Your task to perform on an android device: move an email to a new category in the gmail app Image 0: 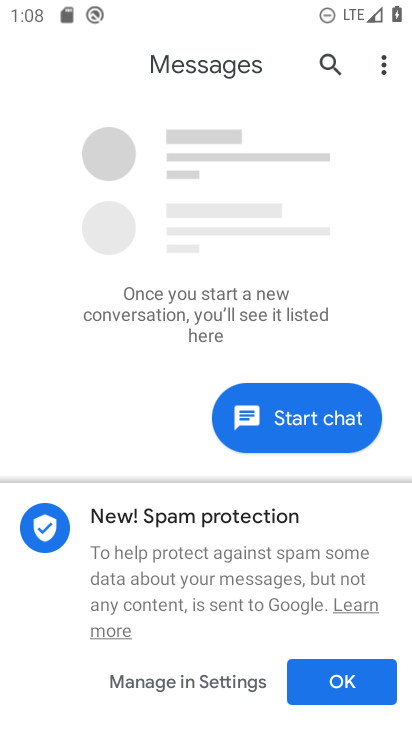
Step 0: drag from (129, 607) to (188, 269)
Your task to perform on an android device: move an email to a new category in the gmail app Image 1: 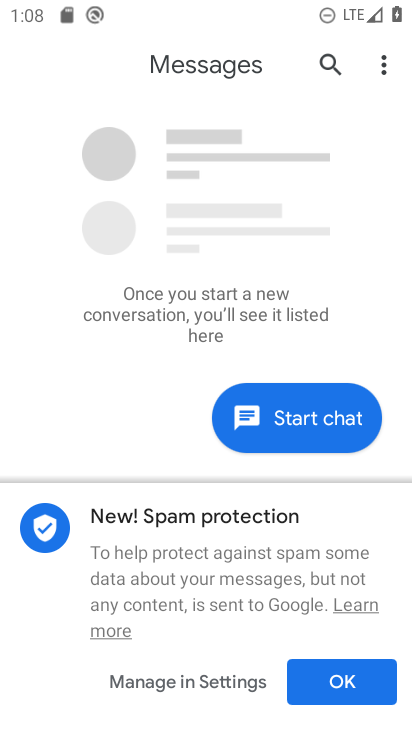
Step 1: press home button
Your task to perform on an android device: move an email to a new category in the gmail app Image 2: 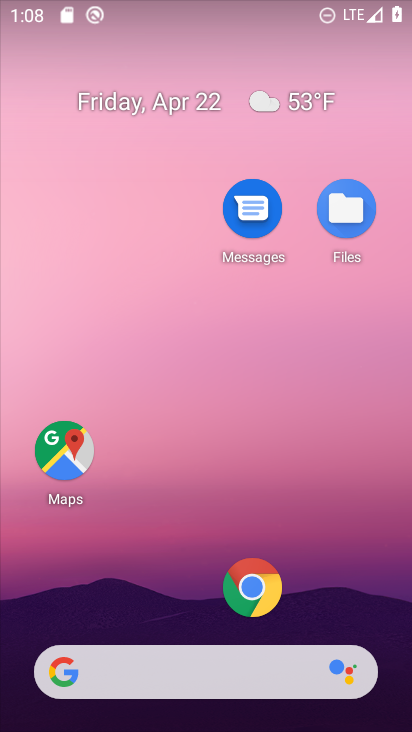
Step 2: drag from (154, 629) to (174, 232)
Your task to perform on an android device: move an email to a new category in the gmail app Image 3: 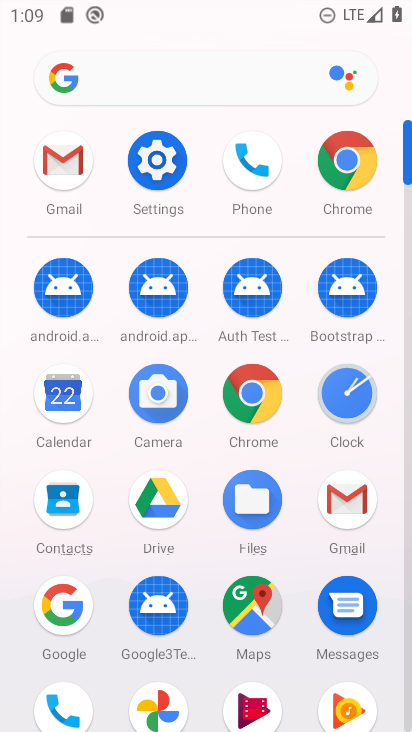
Step 3: click (50, 166)
Your task to perform on an android device: move an email to a new category in the gmail app Image 4: 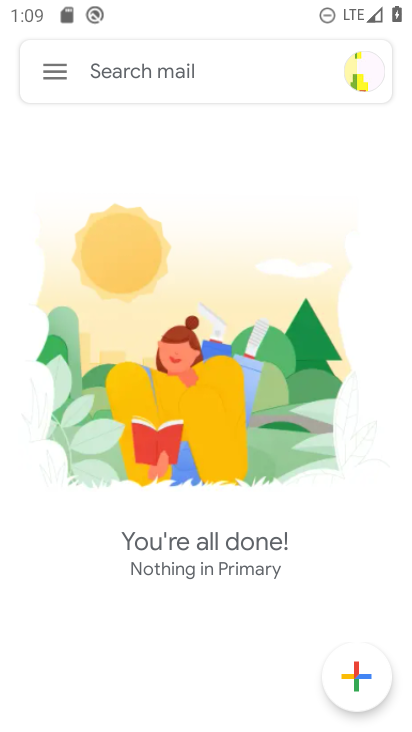
Step 4: click (57, 79)
Your task to perform on an android device: move an email to a new category in the gmail app Image 5: 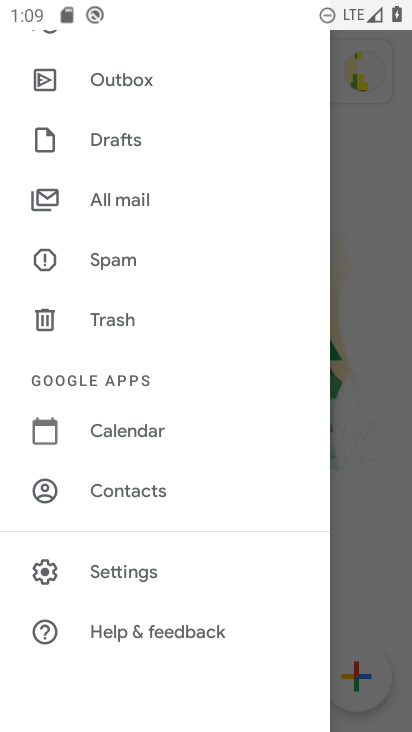
Step 5: click (112, 206)
Your task to perform on an android device: move an email to a new category in the gmail app Image 6: 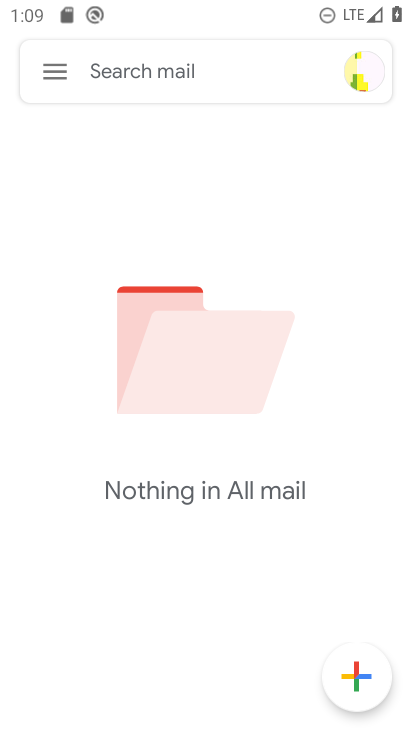
Step 6: task complete